Your task to perform on an android device: toggle notifications settings in the gmail app Image 0: 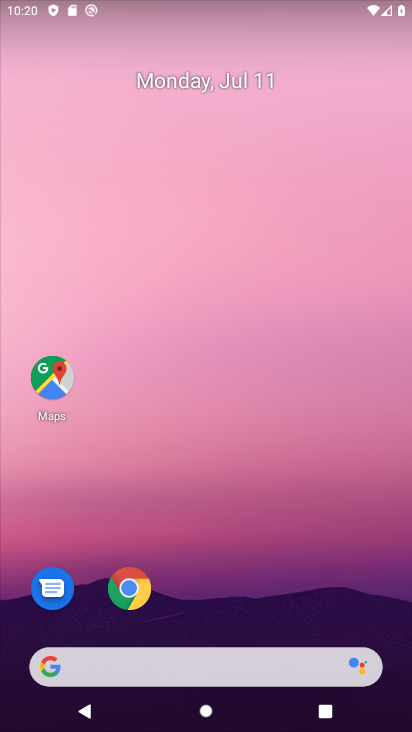
Step 0: drag from (220, 551) to (191, 157)
Your task to perform on an android device: toggle notifications settings in the gmail app Image 1: 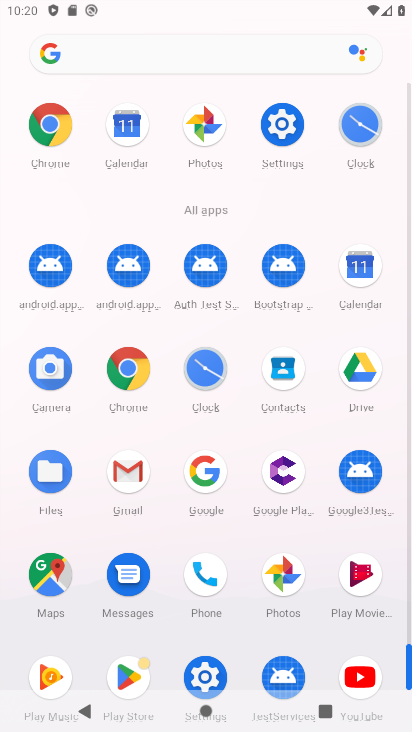
Step 1: click (127, 464)
Your task to perform on an android device: toggle notifications settings in the gmail app Image 2: 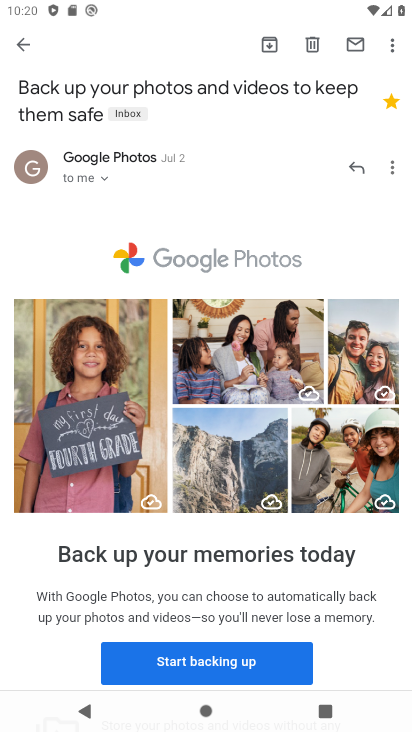
Step 2: click (393, 45)
Your task to perform on an android device: toggle notifications settings in the gmail app Image 3: 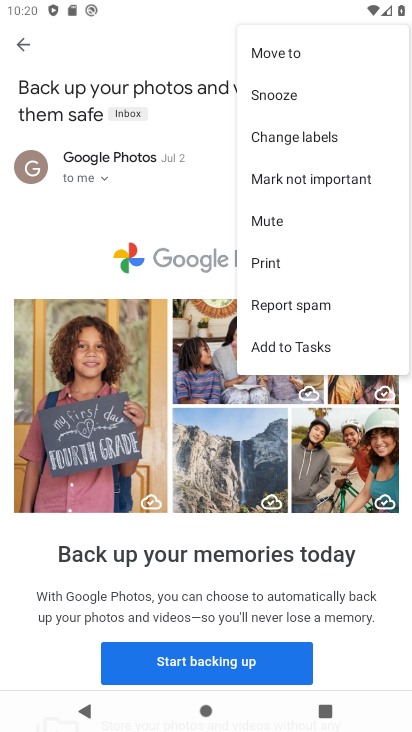
Step 3: click (171, 182)
Your task to perform on an android device: toggle notifications settings in the gmail app Image 4: 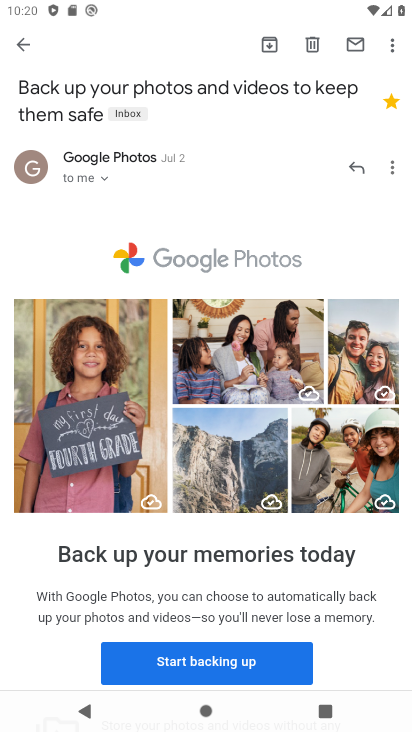
Step 4: click (16, 39)
Your task to perform on an android device: toggle notifications settings in the gmail app Image 5: 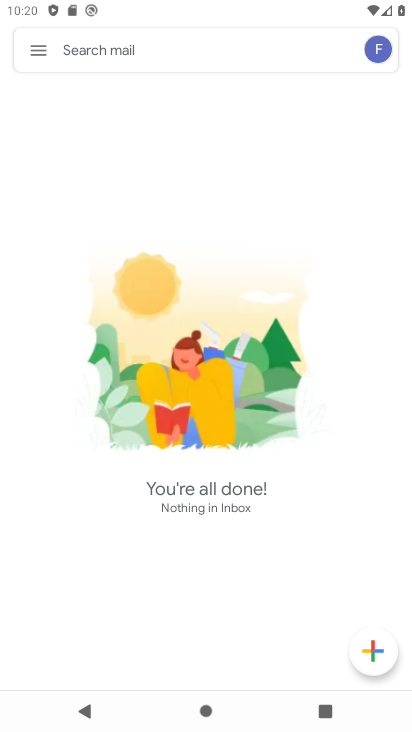
Step 5: click (37, 69)
Your task to perform on an android device: toggle notifications settings in the gmail app Image 6: 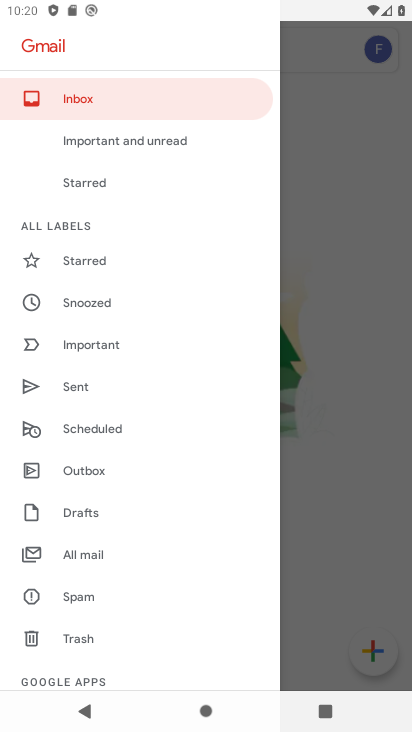
Step 6: drag from (135, 630) to (131, 309)
Your task to perform on an android device: toggle notifications settings in the gmail app Image 7: 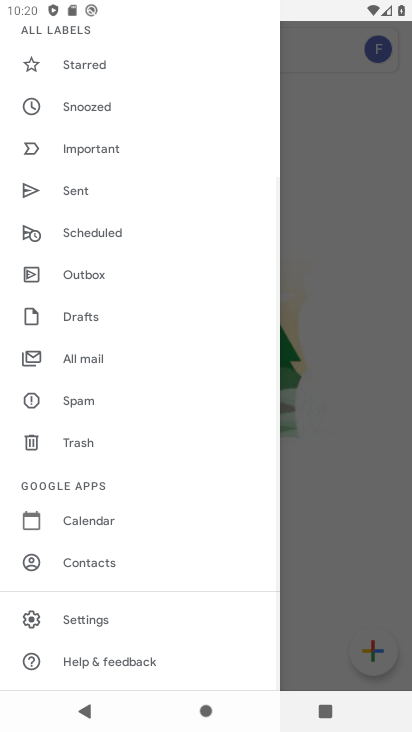
Step 7: click (72, 631)
Your task to perform on an android device: toggle notifications settings in the gmail app Image 8: 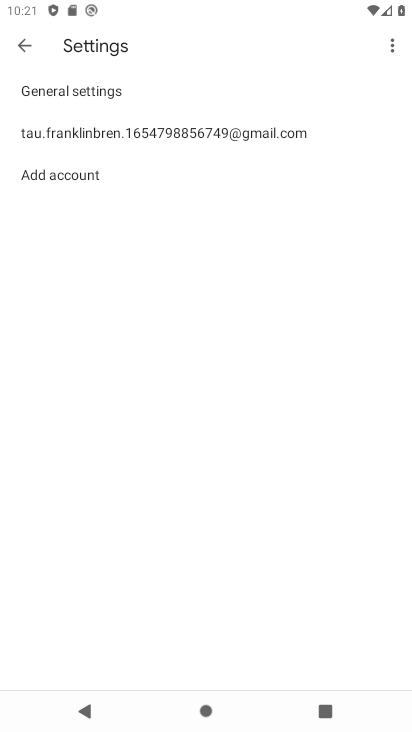
Step 8: click (92, 90)
Your task to perform on an android device: toggle notifications settings in the gmail app Image 9: 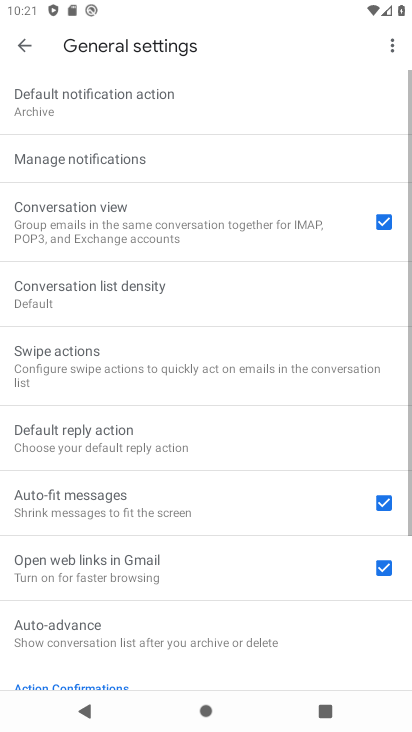
Step 9: click (92, 90)
Your task to perform on an android device: toggle notifications settings in the gmail app Image 10: 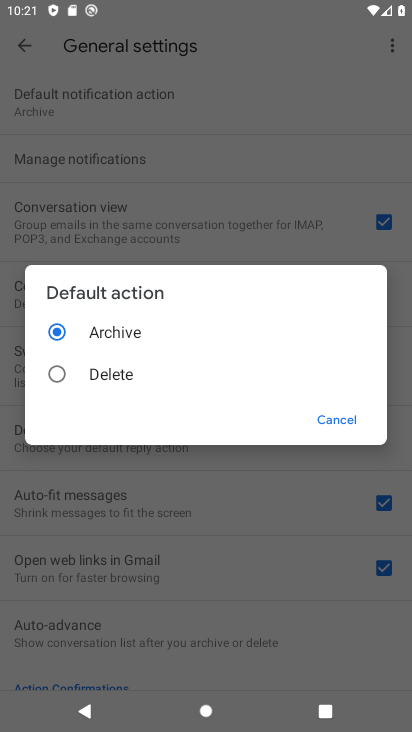
Step 10: click (168, 179)
Your task to perform on an android device: toggle notifications settings in the gmail app Image 11: 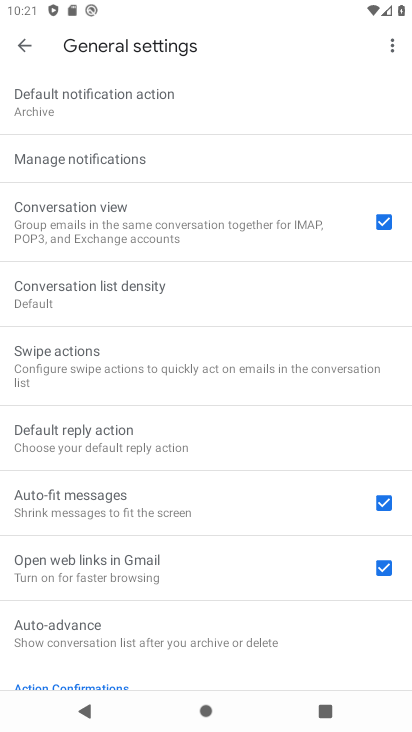
Step 11: click (125, 164)
Your task to perform on an android device: toggle notifications settings in the gmail app Image 12: 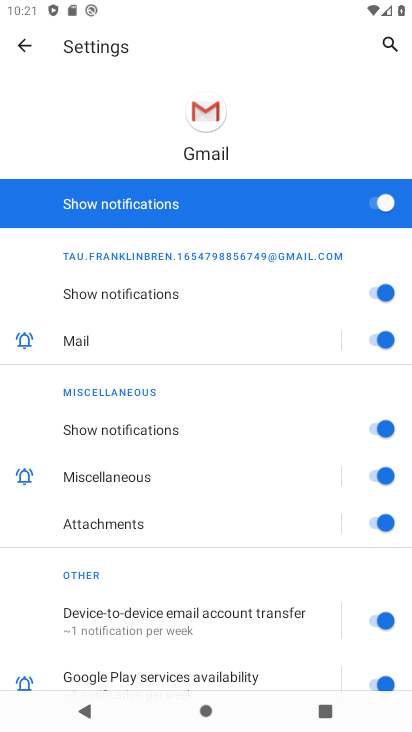
Step 12: click (376, 201)
Your task to perform on an android device: toggle notifications settings in the gmail app Image 13: 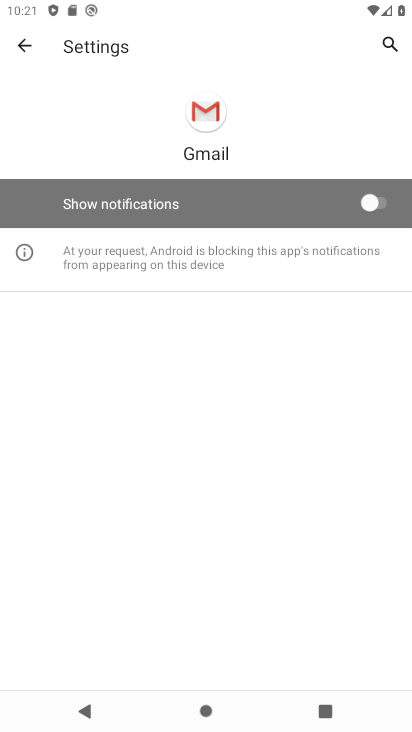
Step 13: task complete